Your task to perform on an android device: empty trash in google photos Image 0: 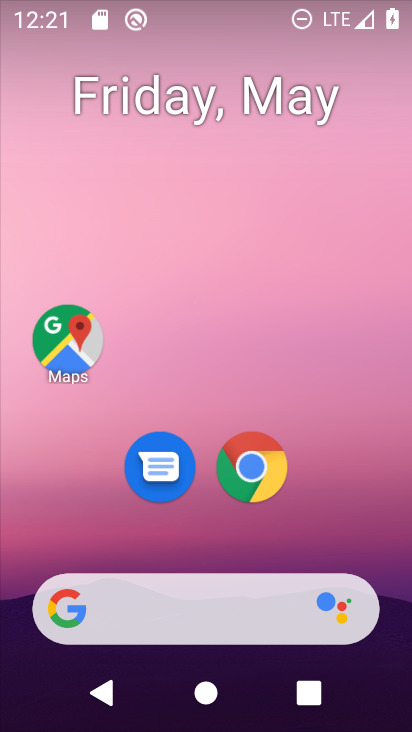
Step 0: drag from (215, 590) to (411, 524)
Your task to perform on an android device: empty trash in google photos Image 1: 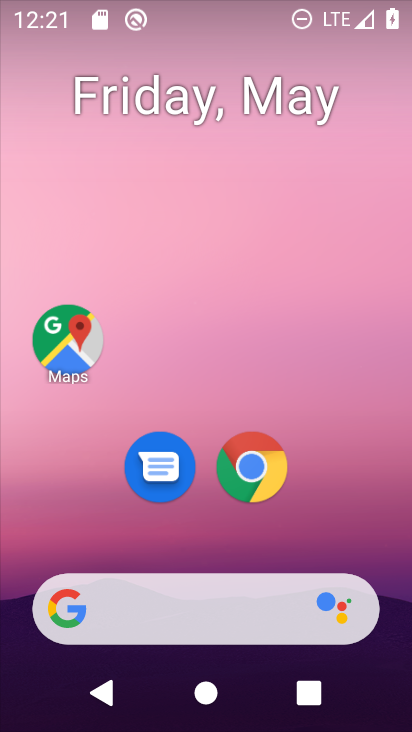
Step 1: drag from (282, 554) to (284, 2)
Your task to perform on an android device: empty trash in google photos Image 2: 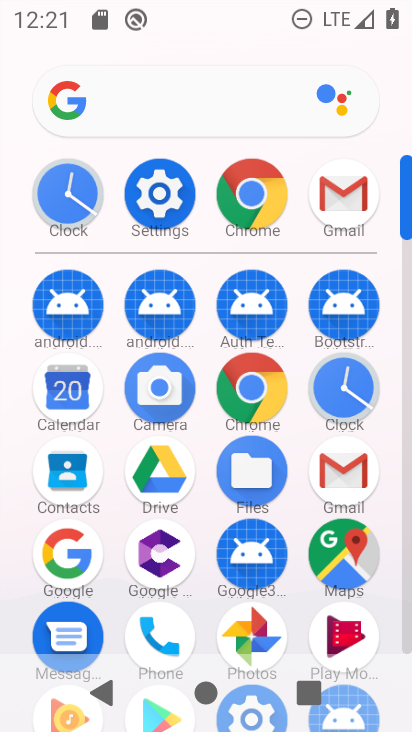
Step 2: drag from (299, 550) to (293, 191)
Your task to perform on an android device: empty trash in google photos Image 3: 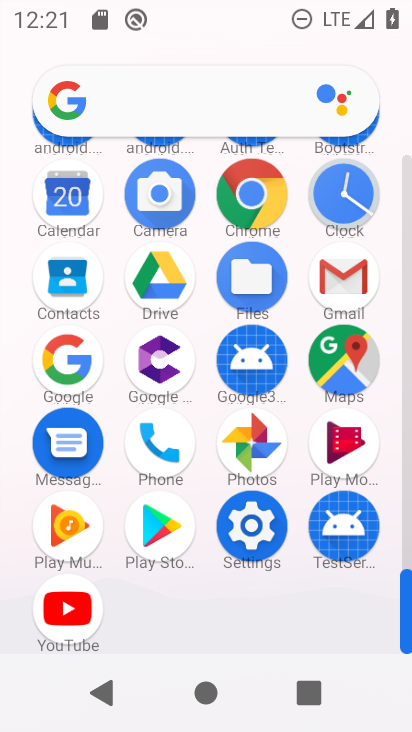
Step 3: click (249, 455)
Your task to perform on an android device: empty trash in google photos Image 4: 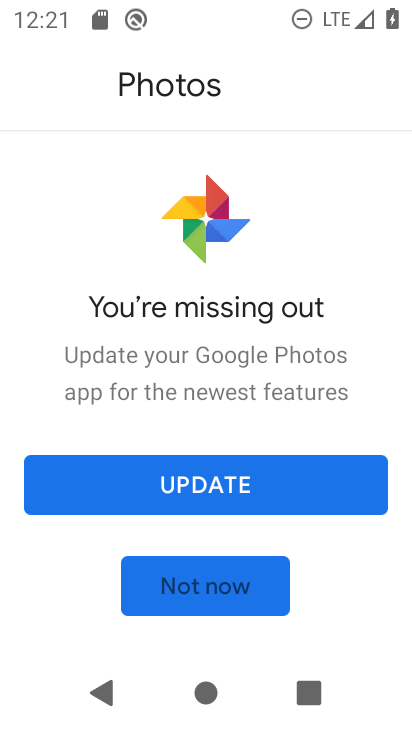
Step 4: click (242, 492)
Your task to perform on an android device: empty trash in google photos Image 5: 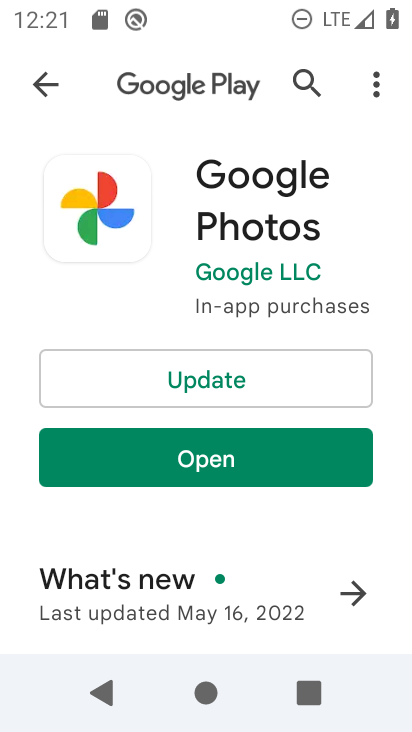
Step 5: click (204, 388)
Your task to perform on an android device: empty trash in google photos Image 6: 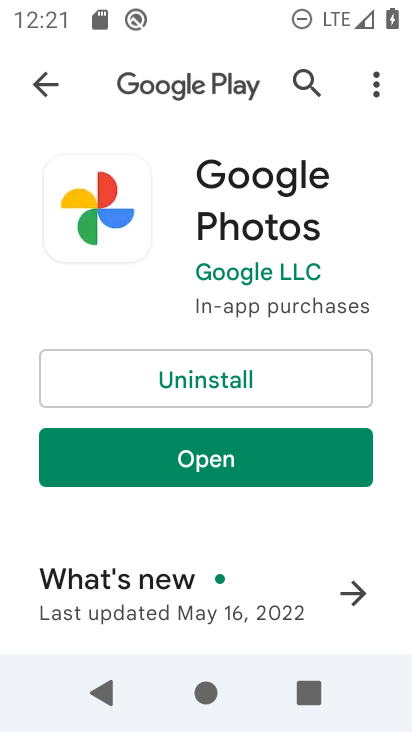
Step 6: click (212, 446)
Your task to perform on an android device: empty trash in google photos Image 7: 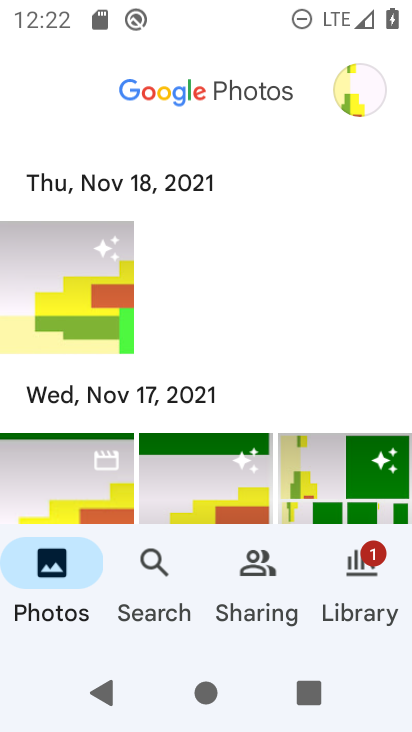
Step 7: click (364, 101)
Your task to perform on an android device: empty trash in google photos Image 8: 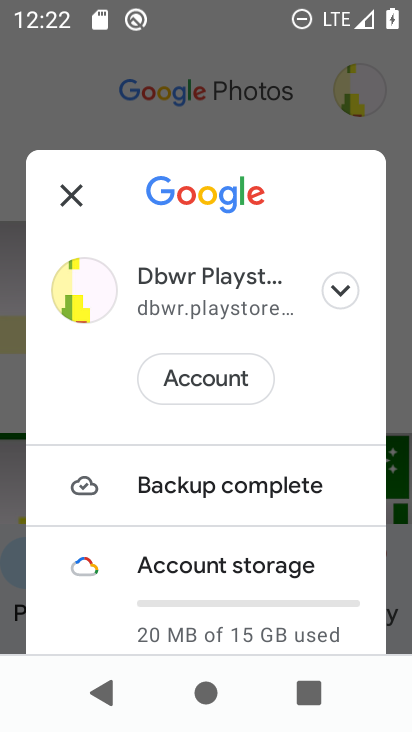
Step 8: click (74, 198)
Your task to perform on an android device: empty trash in google photos Image 9: 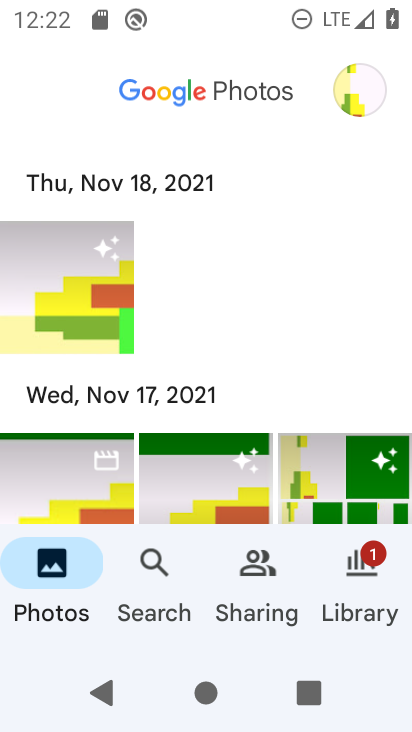
Step 9: click (346, 579)
Your task to perform on an android device: empty trash in google photos Image 10: 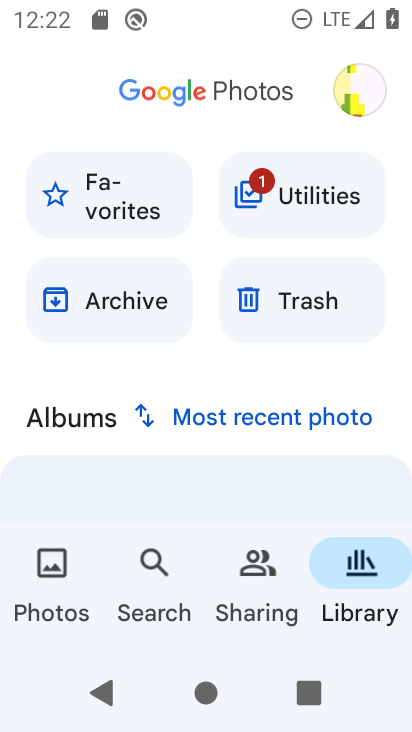
Step 10: click (308, 321)
Your task to perform on an android device: empty trash in google photos Image 11: 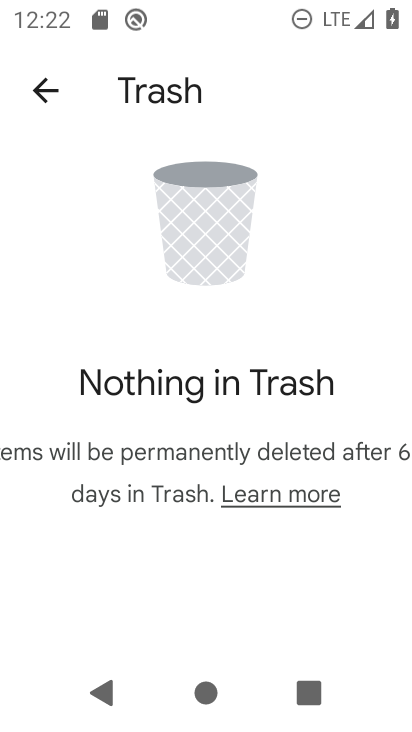
Step 11: task complete